Your task to perform on an android device: Do I have any events today? Image 0: 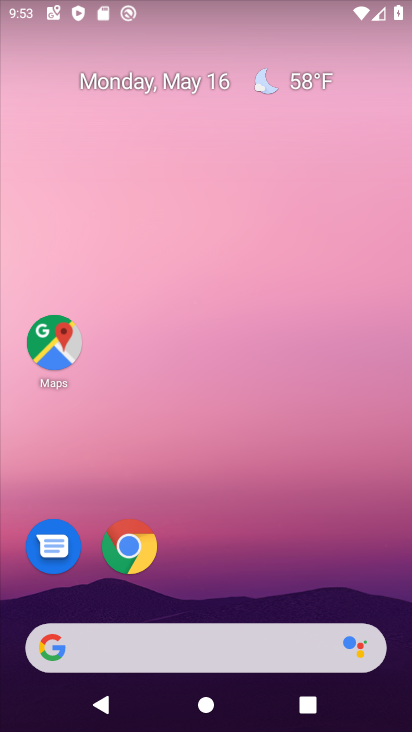
Step 0: drag from (271, 518) to (260, 23)
Your task to perform on an android device: Do I have any events today? Image 1: 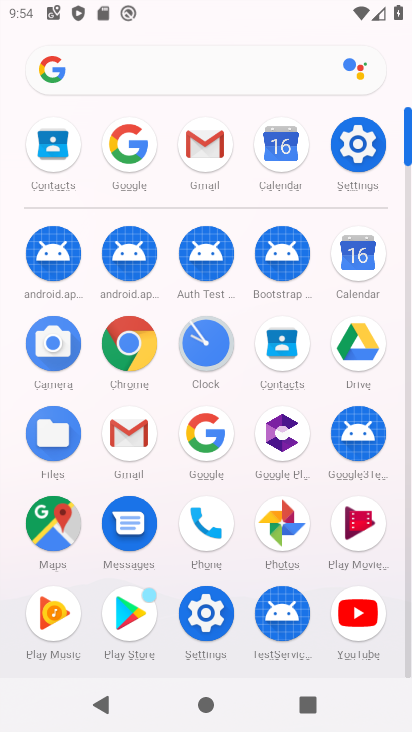
Step 1: click (357, 258)
Your task to perform on an android device: Do I have any events today? Image 2: 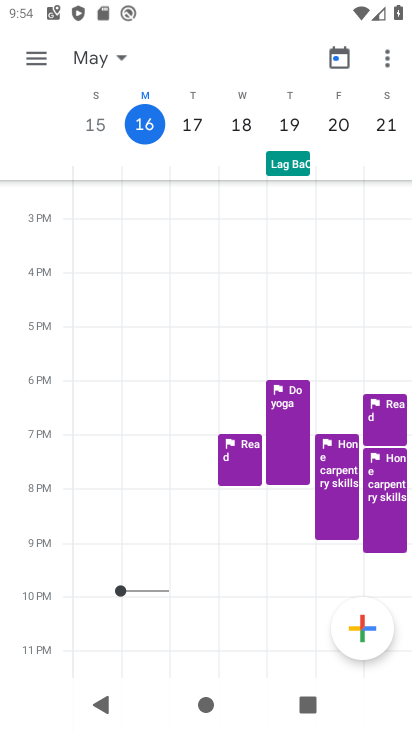
Step 2: click (342, 58)
Your task to perform on an android device: Do I have any events today? Image 3: 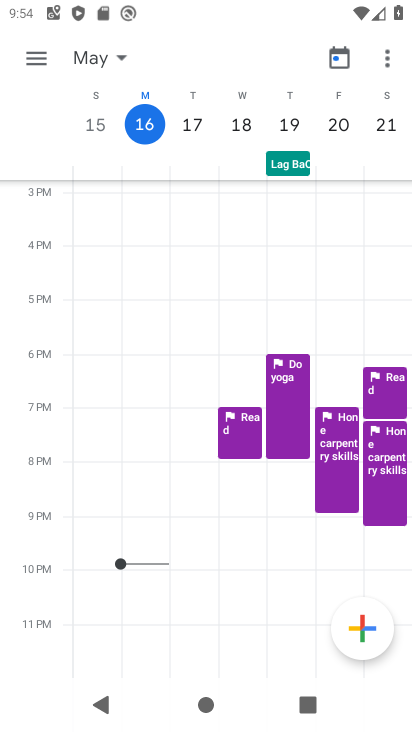
Step 3: click (119, 61)
Your task to perform on an android device: Do I have any events today? Image 4: 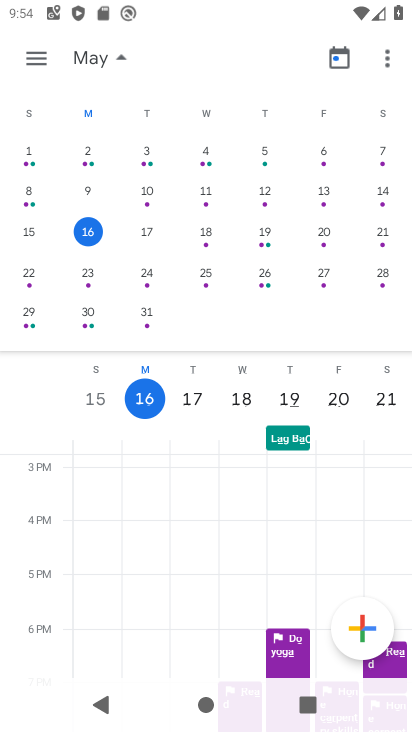
Step 4: click (26, 54)
Your task to perform on an android device: Do I have any events today? Image 5: 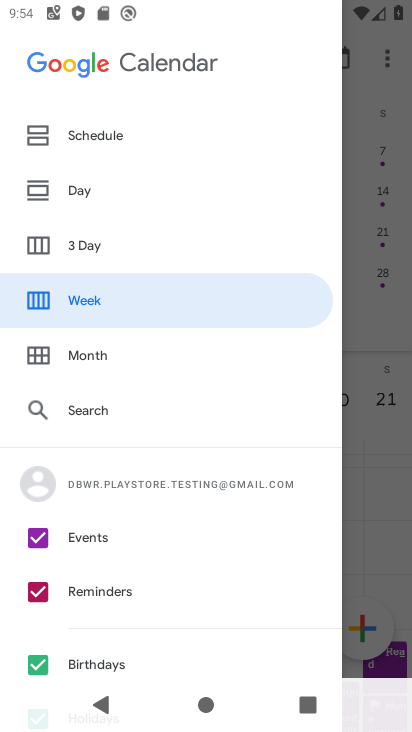
Step 5: click (94, 141)
Your task to perform on an android device: Do I have any events today? Image 6: 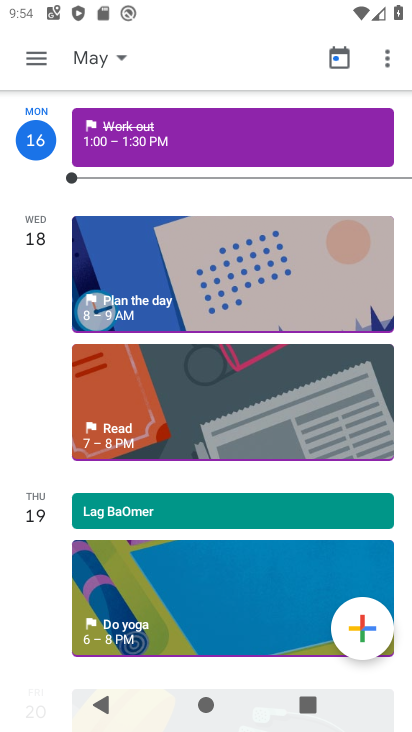
Step 6: click (94, 141)
Your task to perform on an android device: Do I have any events today? Image 7: 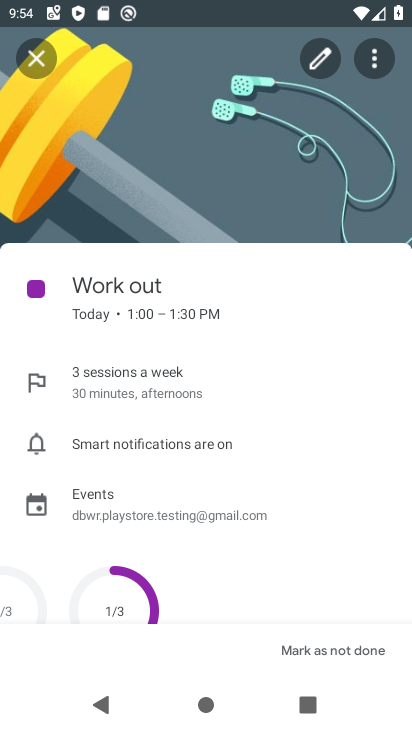
Step 7: task complete